Your task to perform on an android device: Empty the shopping cart on costco. Add usb-c to the cart on costco Image 0: 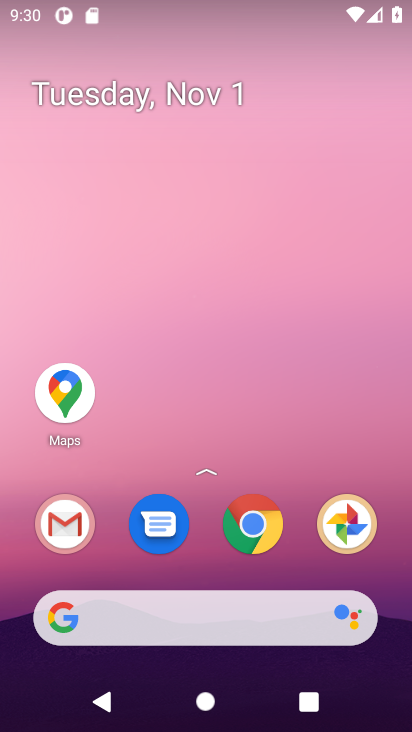
Step 0: press home button
Your task to perform on an android device: Empty the shopping cart on costco. Add usb-c to the cart on costco Image 1: 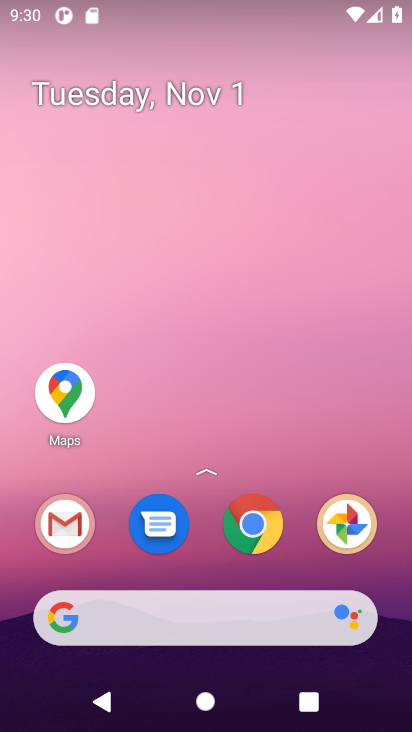
Step 1: click (93, 611)
Your task to perform on an android device: Empty the shopping cart on costco. Add usb-c to the cart on costco Image 2: 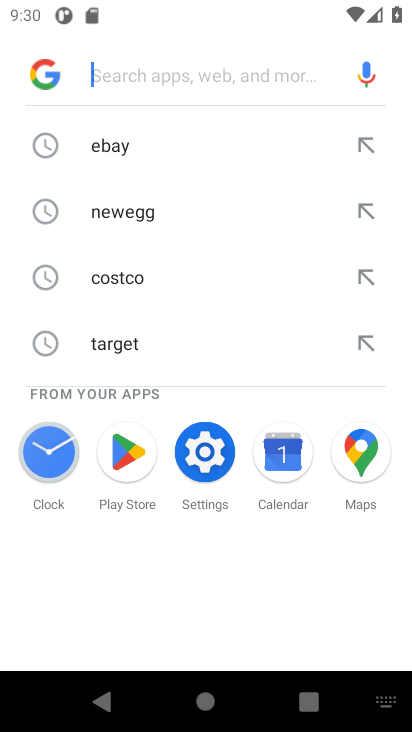
Step 2: type " costco"
Your task to perform on an android device: Empty the shopping cart on costco. Add usb-c to the cart on costco Image 3: 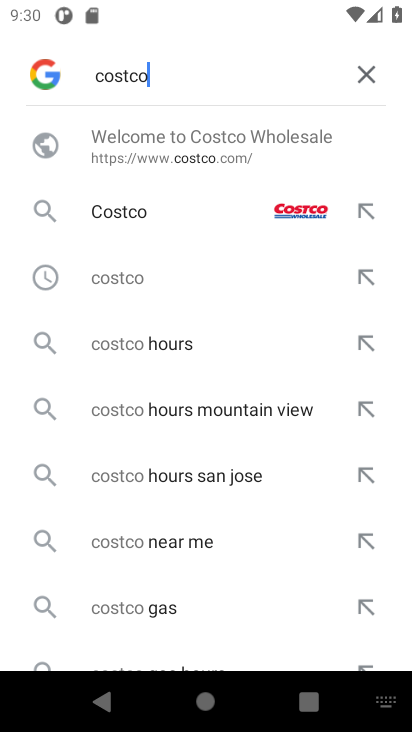
Step 3: press enter
Your task to perform on an android device: Empty the shopping cart on costco. Add usb-c to the cart on costco Image 4: 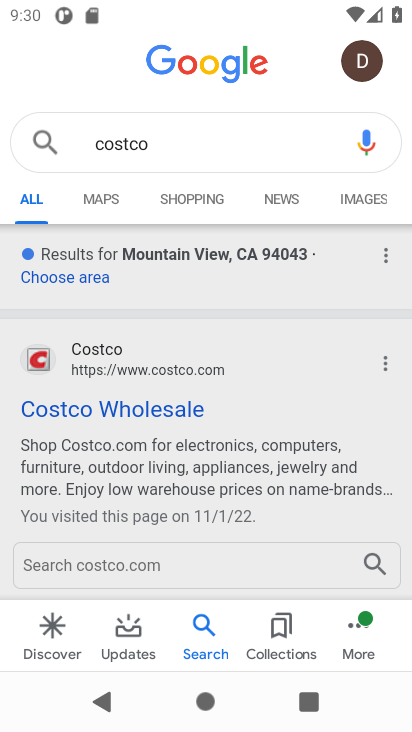
Step 4: click (107, 413)
Your task to perform on an android device: Empty the shopping cart on costco. Add usb-c to the cart on costco Image 5: 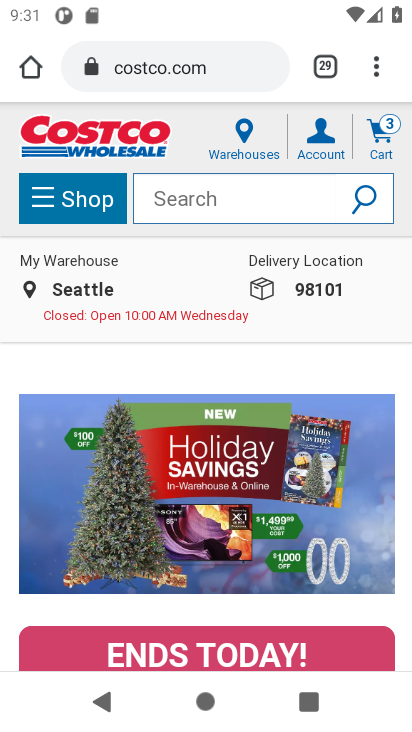
Step 5: click (383, 125)
Your task to perform on an android device: Empty the shopping cart on costco. Add usb-c to the cart on costco Image 6: 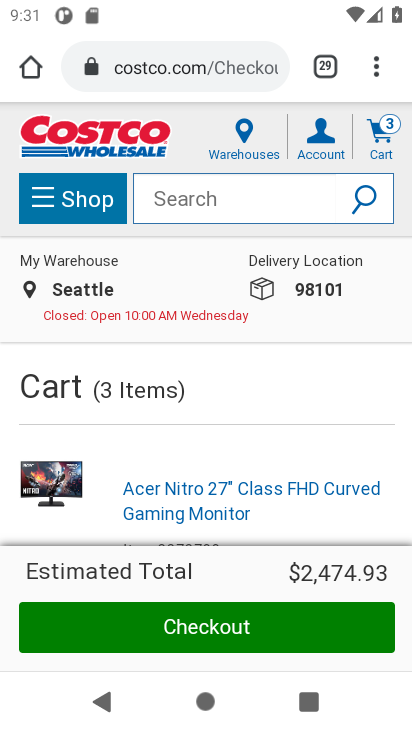
Step 6: drag from (201, 505) to (199, 279)
Your task to perform on an android device: Empty the shopping cart on costco. Add usb-c to the cart on costco Image 7: 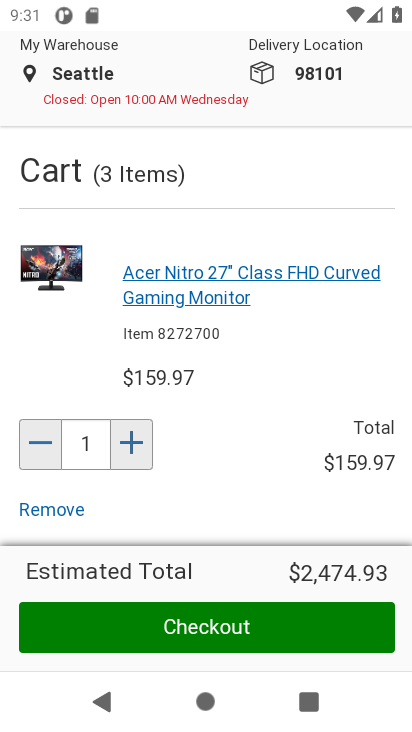
Step 7: drag from (198, 467) to (194, 277)
Your task to perform on an android device: Empty the shopping cart on costco. Add usb-c to the cart on costco Image 8: 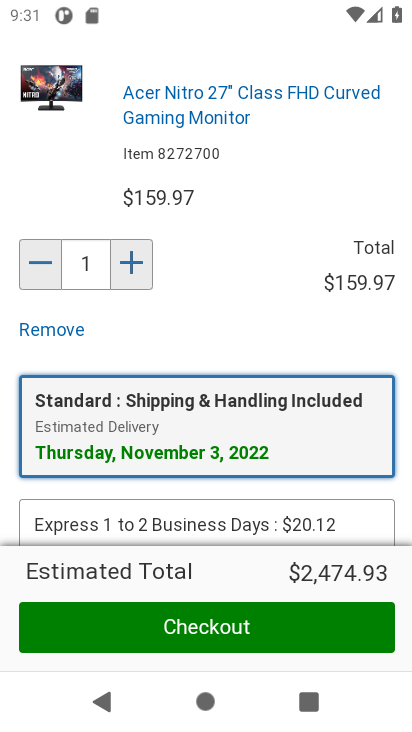
Step 8: drag from (251, 145) to (206, 406)
Your task to perform on an android device: Empty the shopping cart on costco. Add usb-c to the cart on costco Image 9: 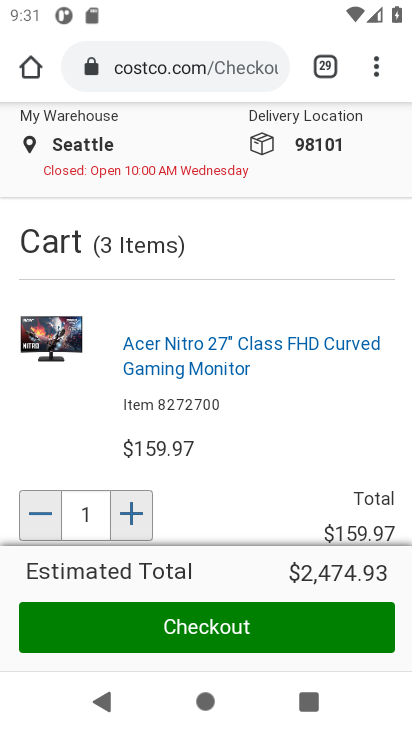
Step 9: drag from (241, 457) to (225, 202)
Your task to perform on an android device: Empty the shopping cart on costco. Add usb-c to the cart on costco Image 10: 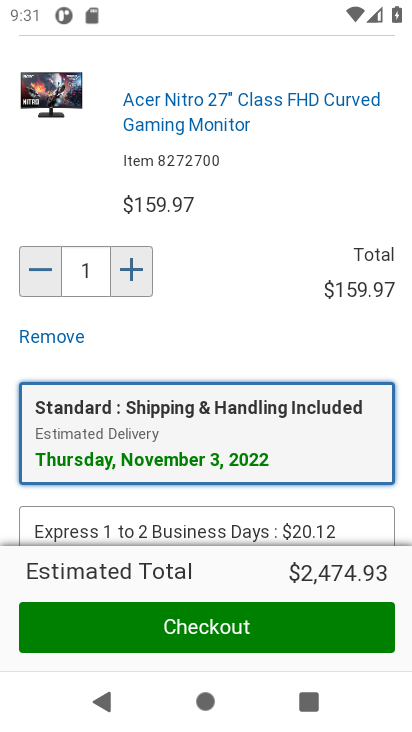
Step 10: click (41, 336)
Your task to perform on an android device: Empty the shopping cart on costco. Add usb-c to the cart on costco Image 11: 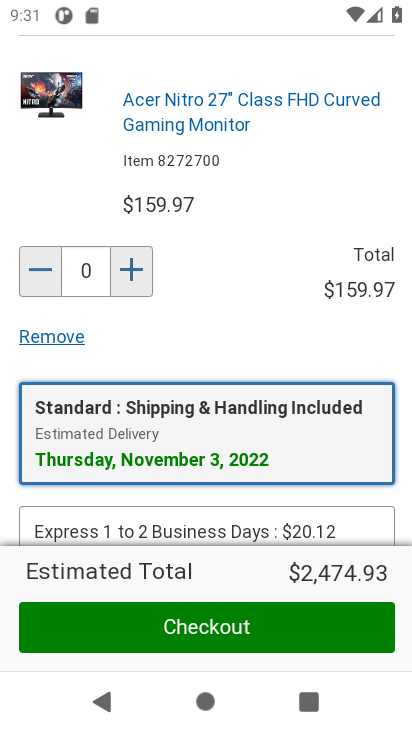
Step 11: click (41, 336)
Your task to perform on an android device: Empty the shopping cart on costco. Add usb-c to the cart on costco Image 12: 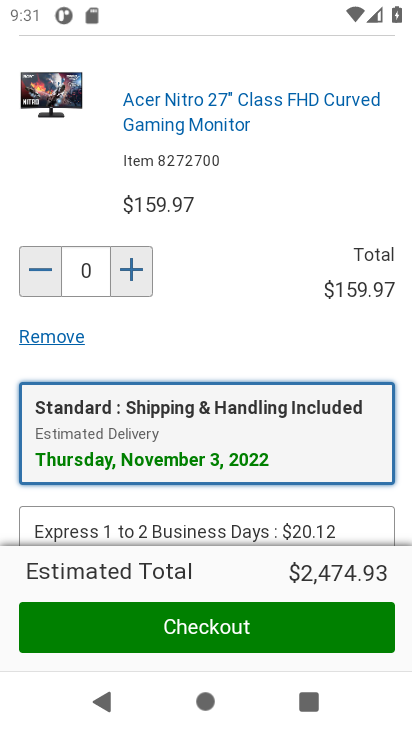
Step 12: click (41, 336)
Your task to perform on an android device: Empty the shopping cart on costco. Add usb-c to the cart on costco Image 13: 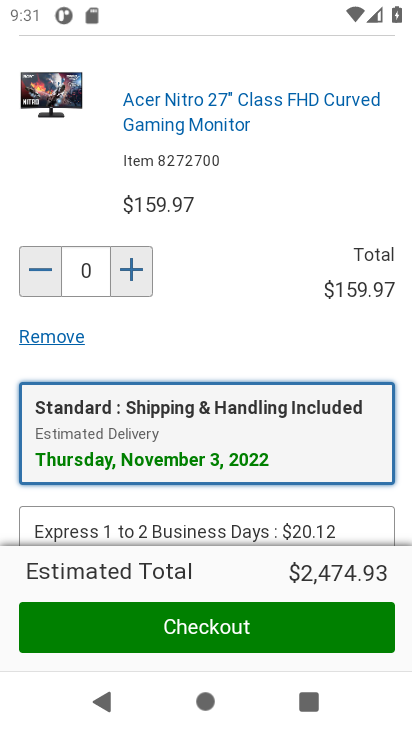
Step 13: click (55, 335)
Your task to perform on an android device: Empty the shopping cart on costco. Add usb-c to the cart on costco Image 14: 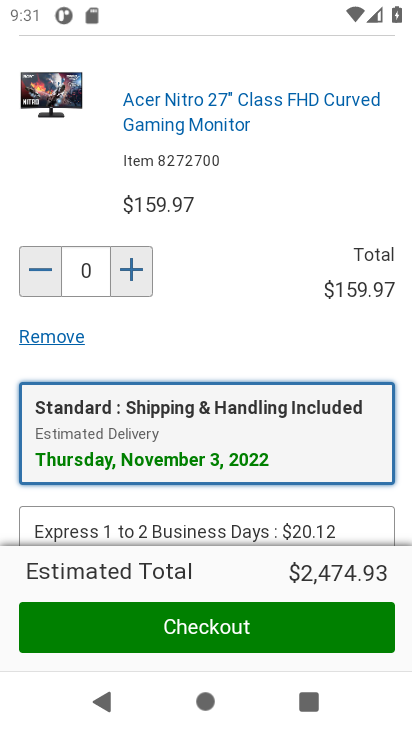
Step 14: click (55, 335)
Your task to perform on an android device: Empty the shopping cart on costco. Add usb-c to the cart on costco Image 15: 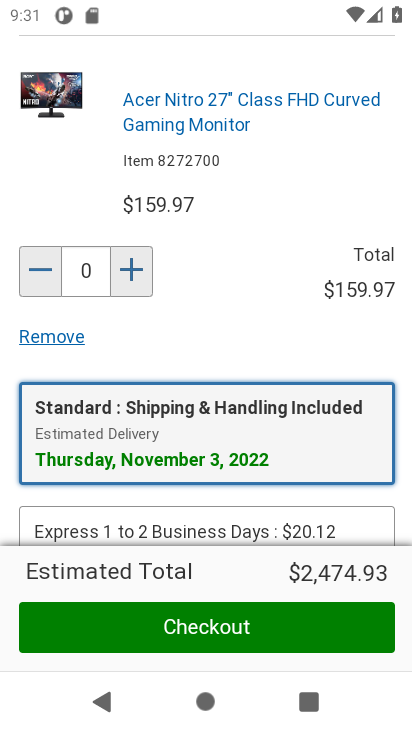
Step 15: click (55, 335)
Your task to perform on an android device: Empty the shopping cart on costco. Add usb-c to the cart on costco Image 16: 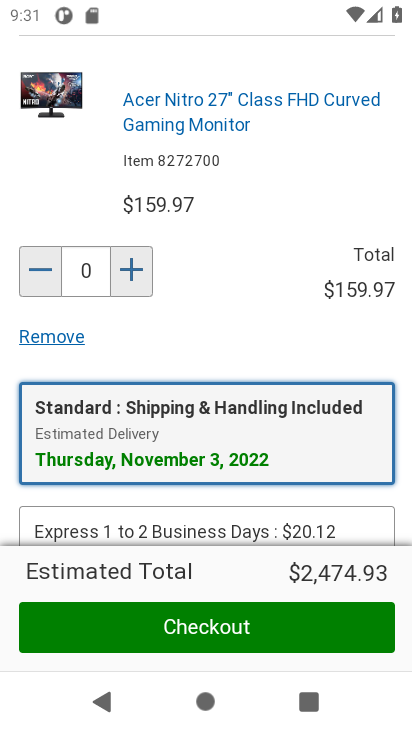
Step 16: task complete